Your task to perform on an android device: turn off smart reply in the gmail app Image 0: 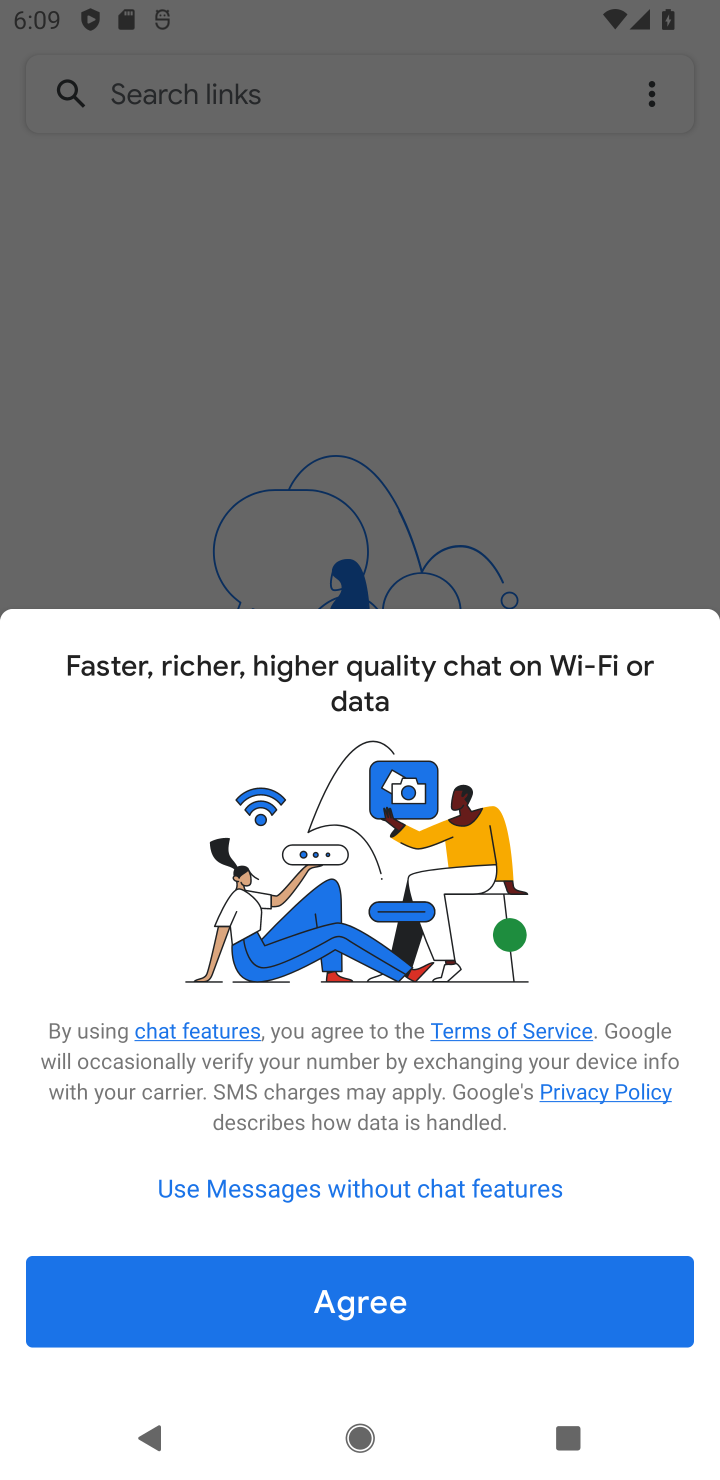
Step 0: press back button
Your task to perform on an android device: turn off smart reply in the gmail app Image 1: 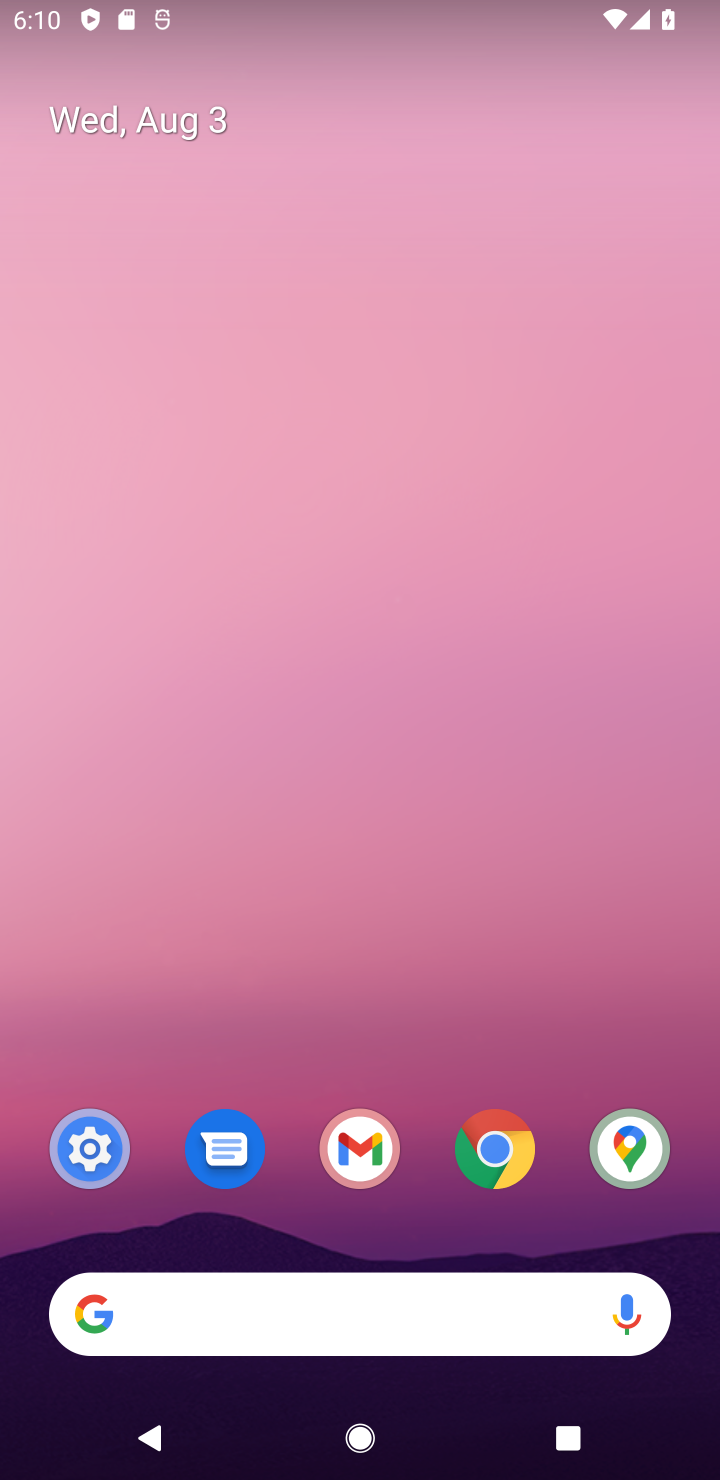
Step 1: click (338, 1173)
Your task to perform on an android device: turn off smart reply in the gmail app Image 2: 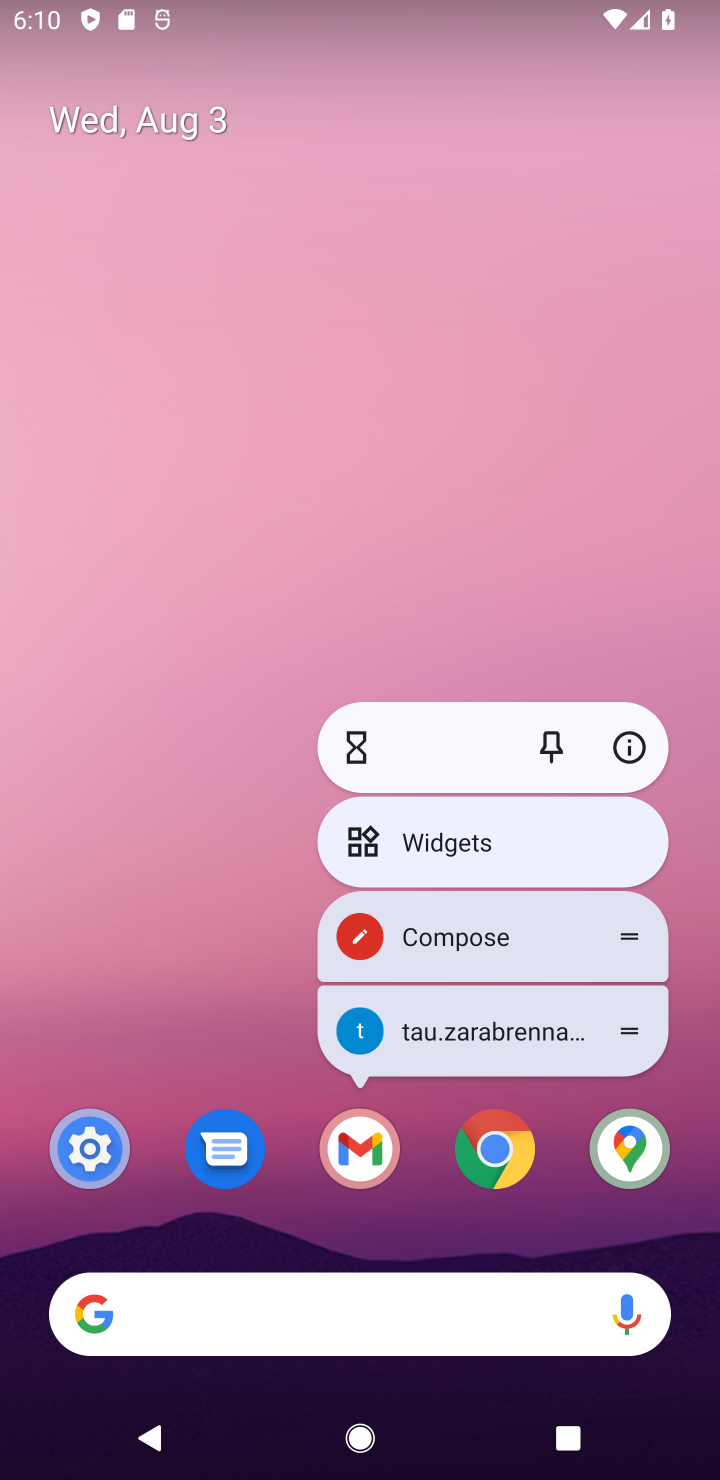
Step 2: click (354, 1187)
Your task to perform on an android device: turn off smart reply in the gmail app Image 3: 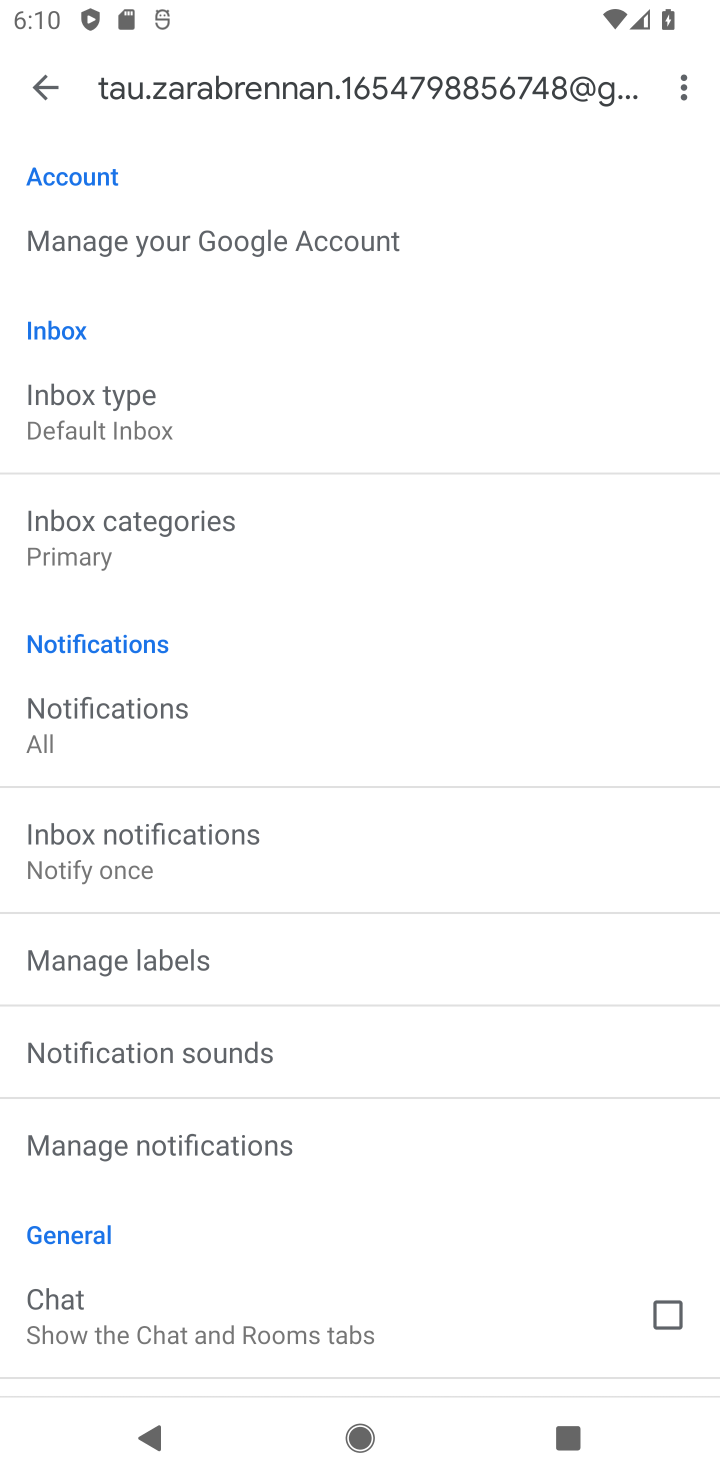
Step 3: drag from (181, 1161) to (330, 71)
Your task to perform on an android device: turn off smart reply in the gmail app Image 4: 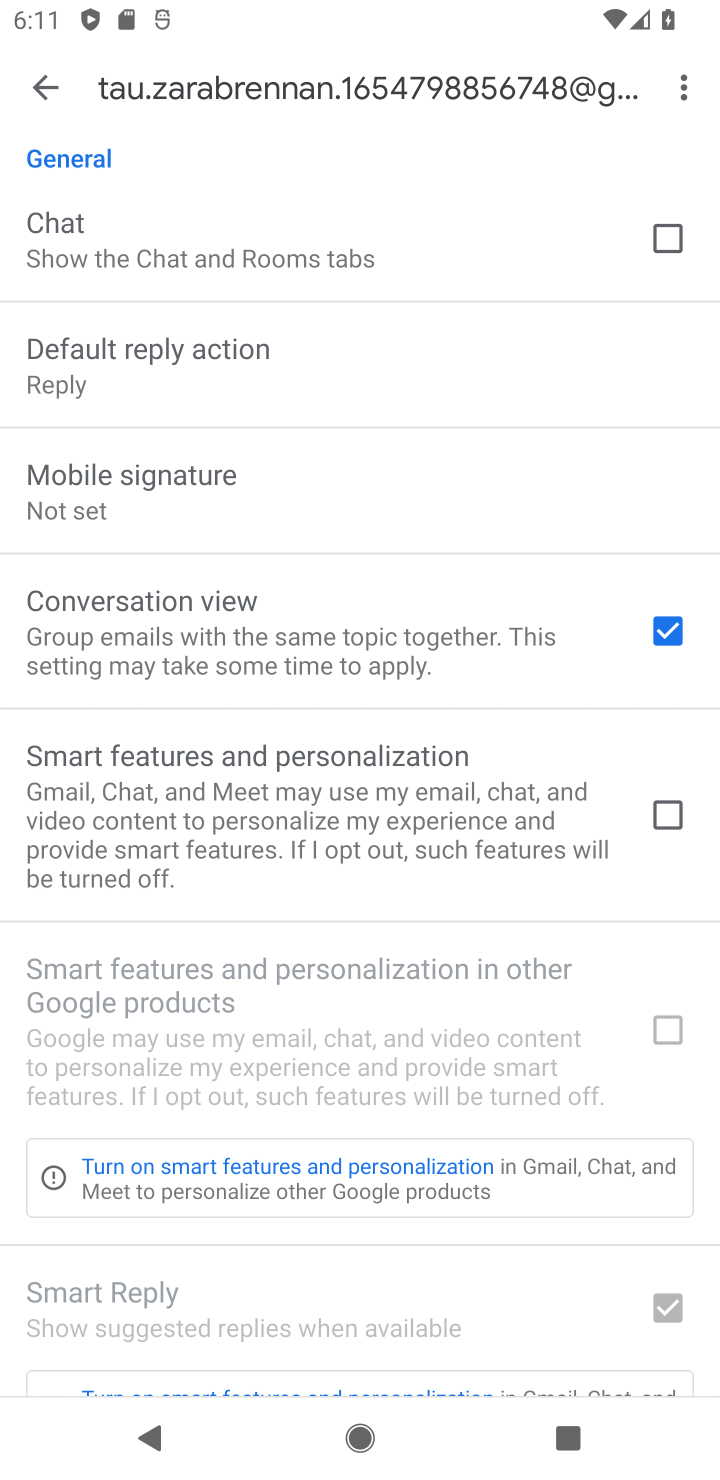
Step 4: drag from (273, 1159) to (258, 827)
Your task to perform on an android device: turn off smart reply in the gmail app Image 5: 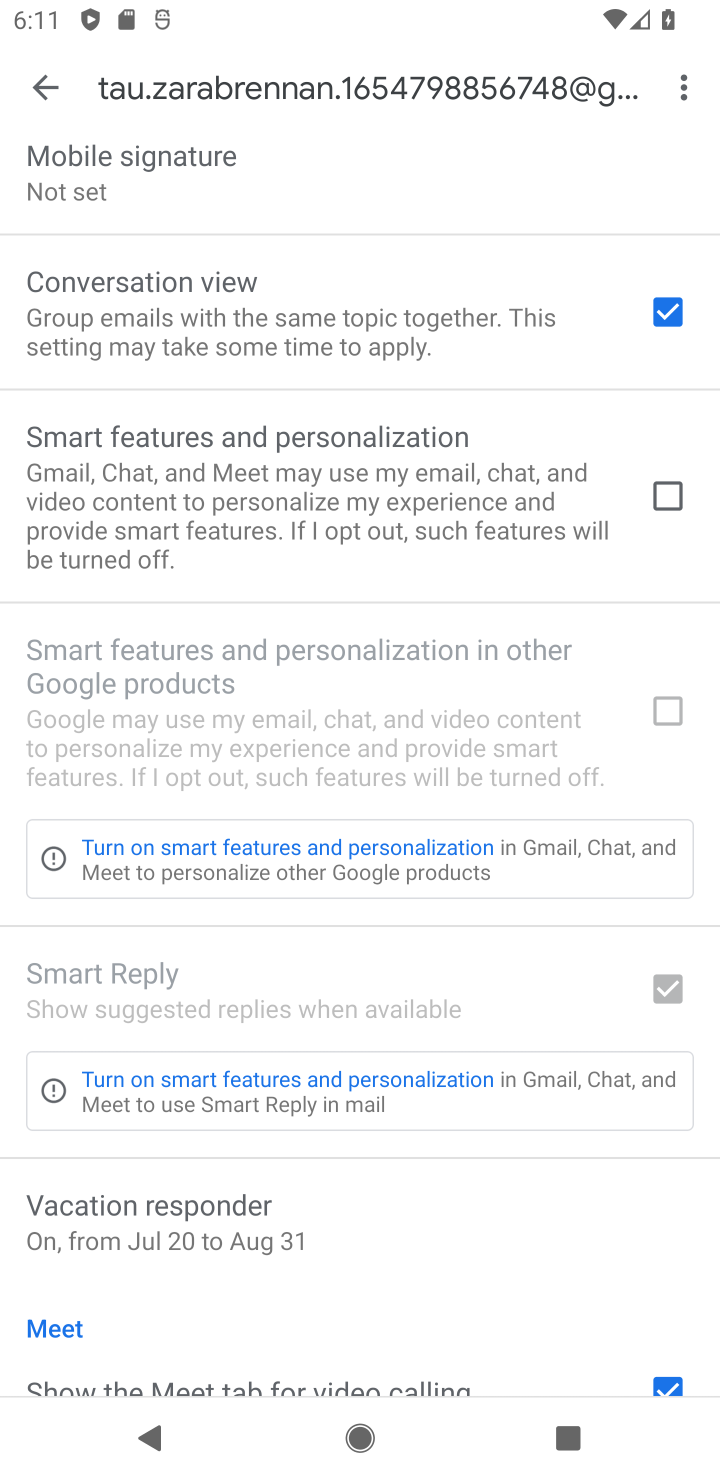
Step 5: click (667, 991)
Your task to perform on an android device: turn off smart reply in the gmail app Image 6: 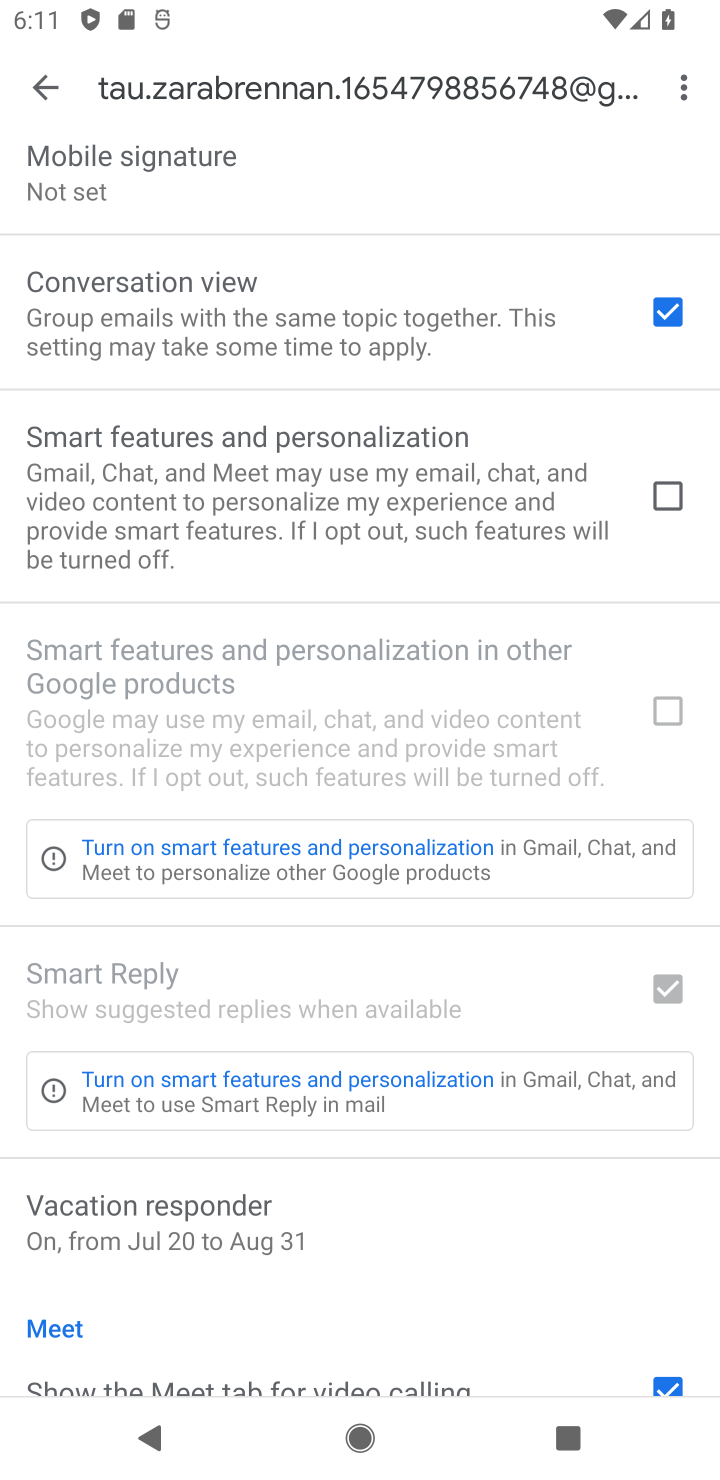
Step 6: click (674, 501)
Your task to perform on an android device: turn off smart reply in the gmail app Image 7: 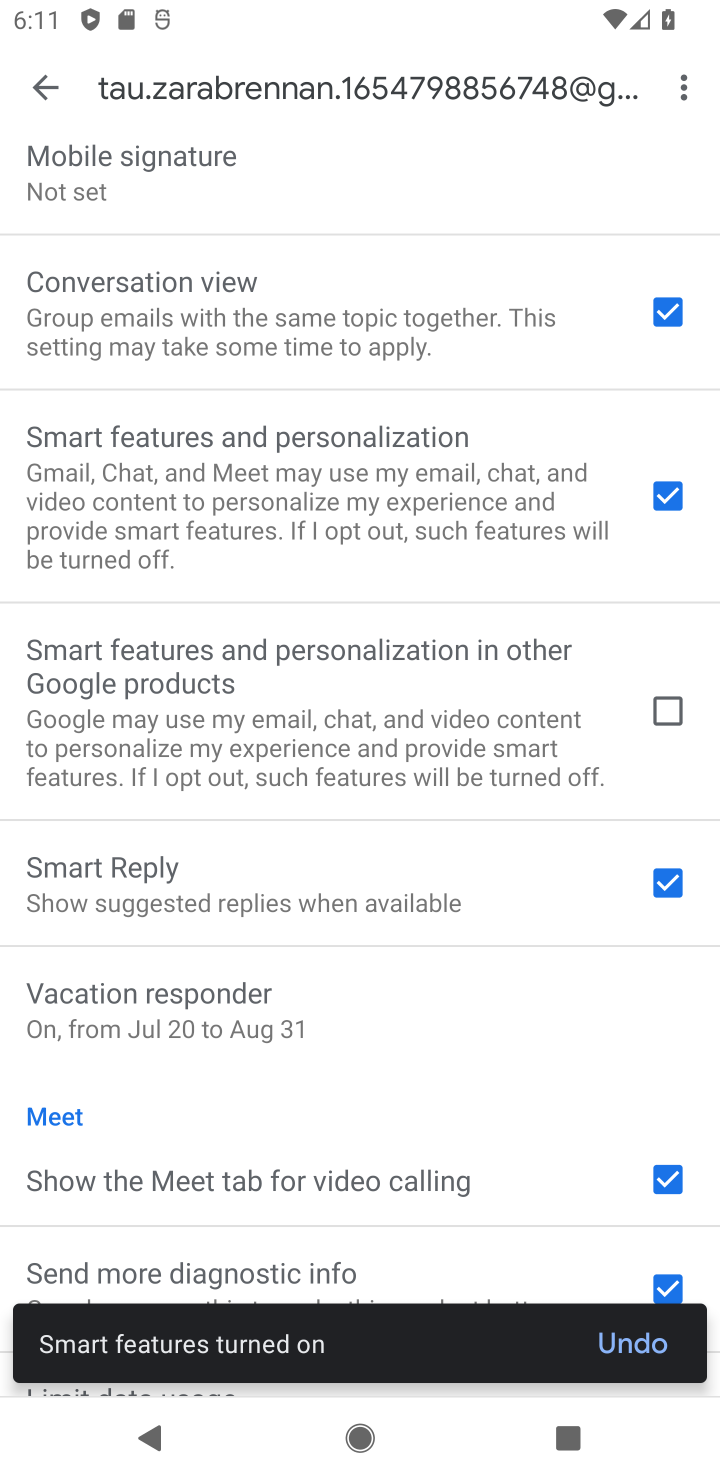
Step 7: click (661, 868)
Your task to perform on an android device: turn off smart reply in the gmail app Image 8: 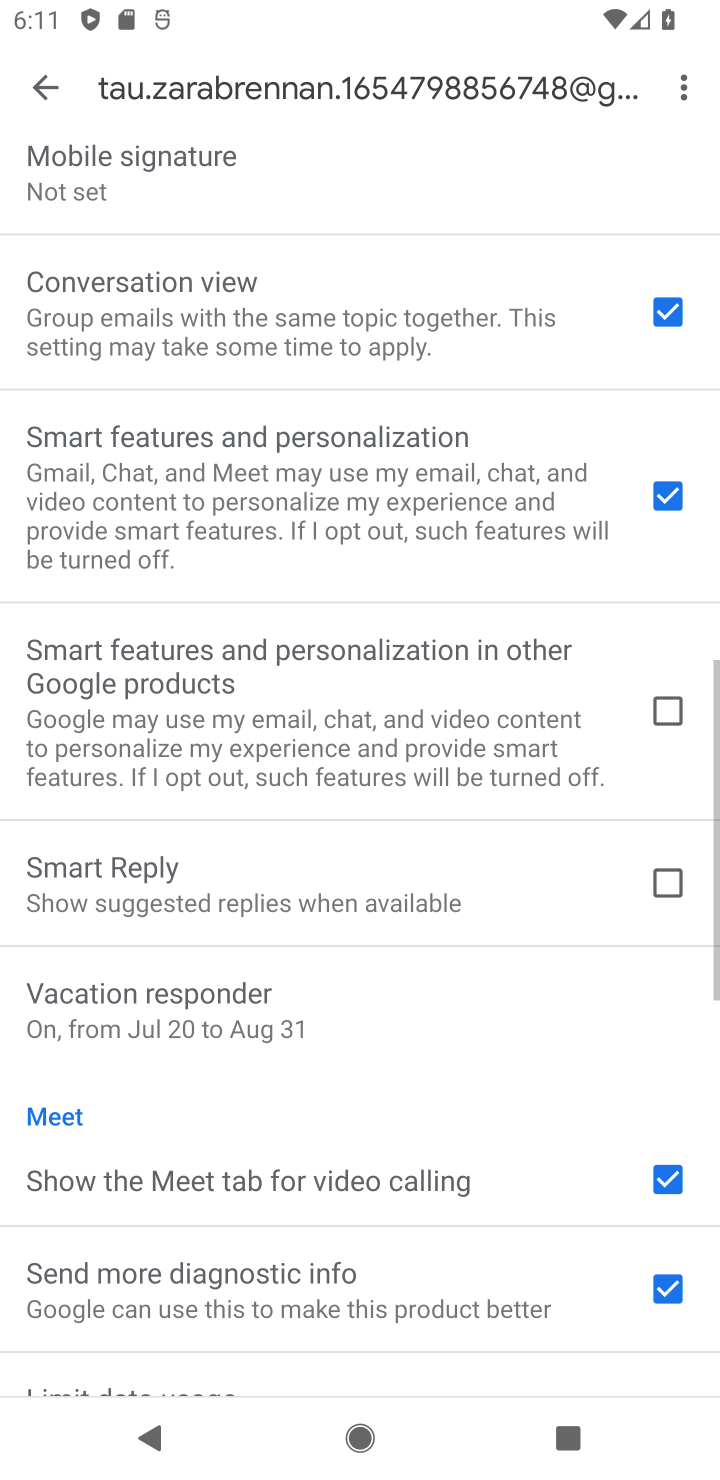
Step 8: task complete